Your task to perform on an android device: search for starred emails in the gmail app Image 0: 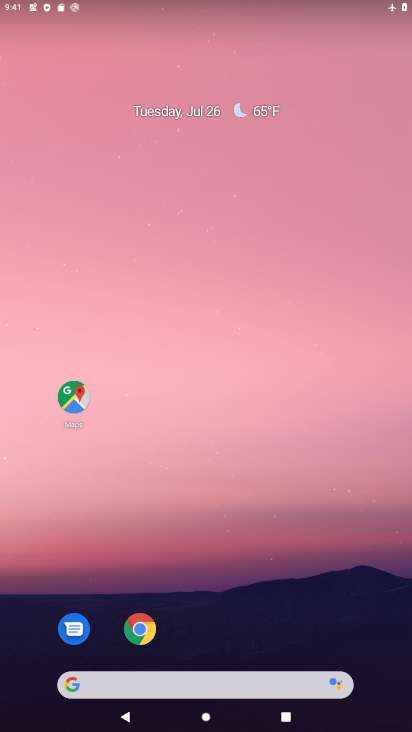
Step 0: drag from (323, 600) to (353, 67)
Your task to perform on an android device: search for starred emails in the gmail app Image 1: 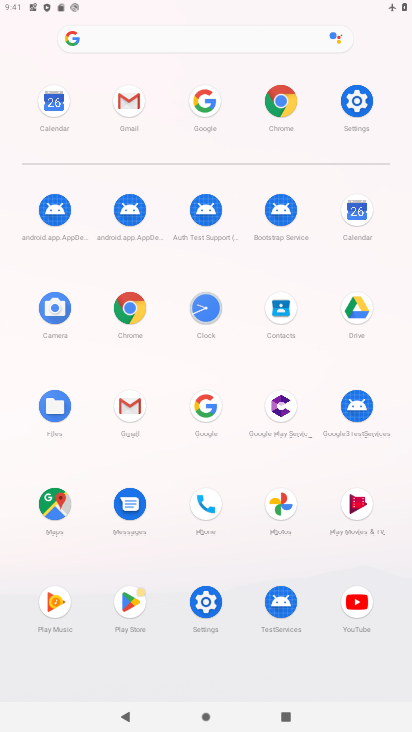
Step 1: click (131, 102)
Your task to perform on an android device: search for starred emails in the gmail app Image 2: 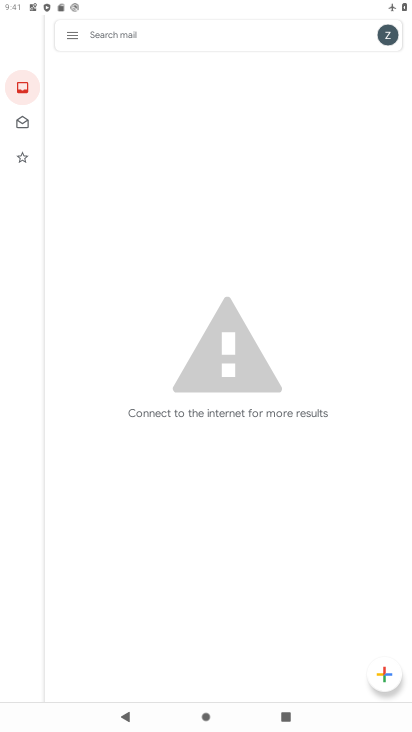
Step 2: click (63, 35)
Your task to perform on an android device: search for starred emails in the gmail app Image 3: 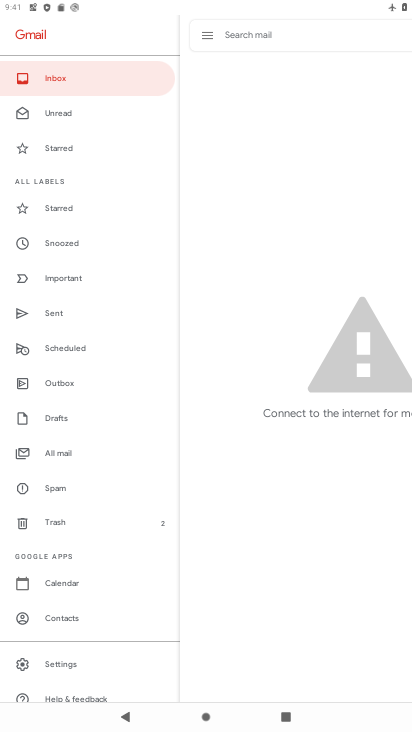
Step 3: click (52, 210)
Your task to perform on an android device: search for starred emails in the gmail app Image 4: 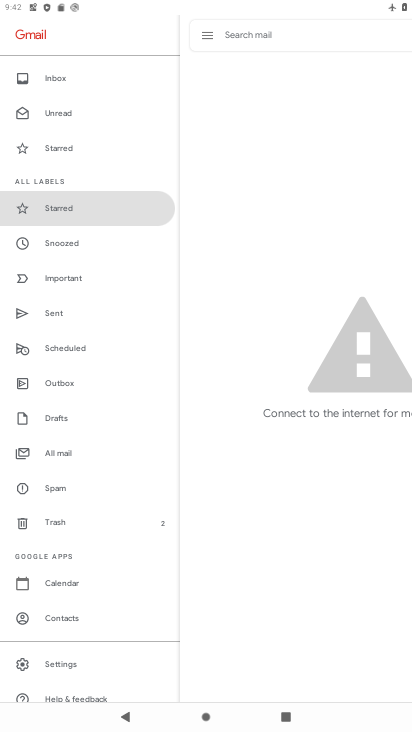
Step 4: task complete